Your task to perform on an android device: Go to privacy settings Image 0: 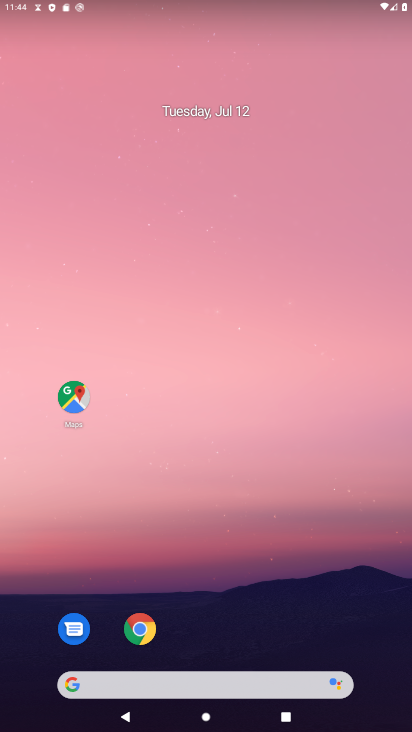
Step 0: drag from (352, 616) to (304, 97)
Your task to perform on an android device: Go to privacy settings Image 1: 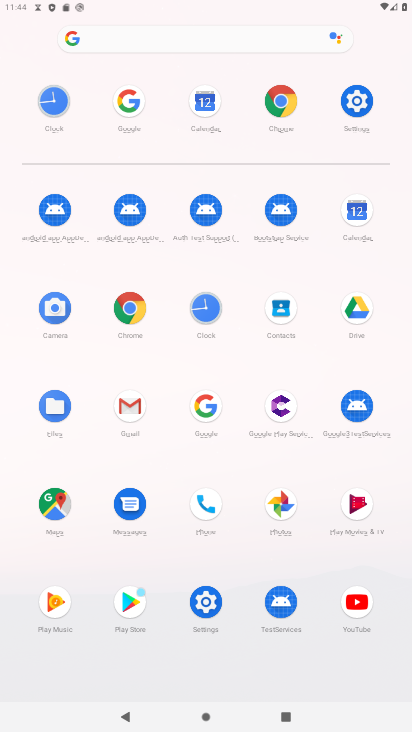
Step 1: click (358, 111)
Your task to perform on an android device: Go to privacy settings Image 2: 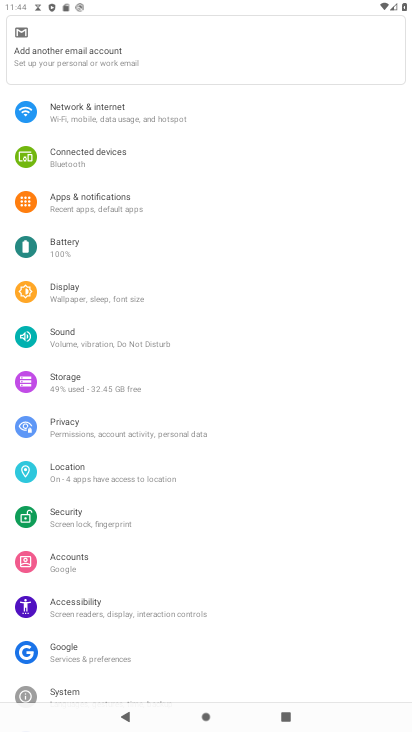
Step 2: click (111, 426)
Your task to perform on an android device: Go to privacy settings Image 3: 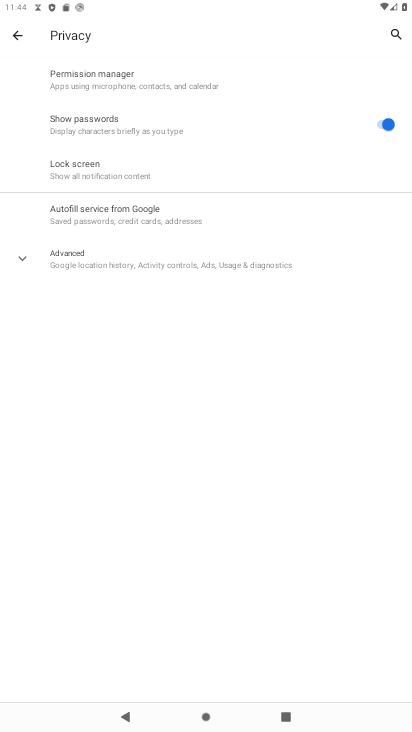
Step 3: task complete